Your task to perform on an android device: choose inbox layout in the gmail app Image 0: 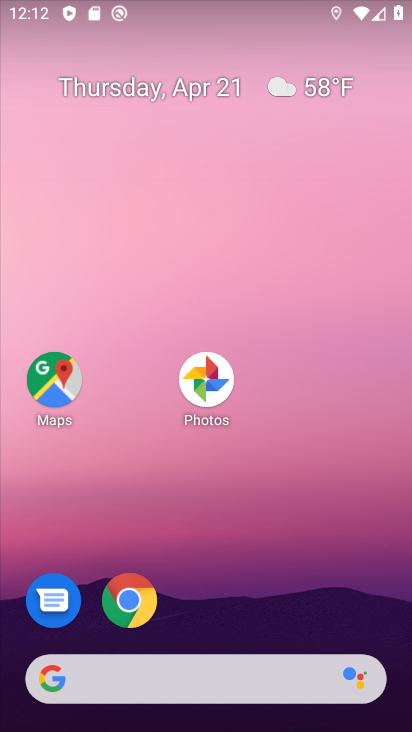
Step 0: drag from (222, 649) to (170, 68)
Your task to perform on an android device: choose inbox layout in the gmail app Image 1: 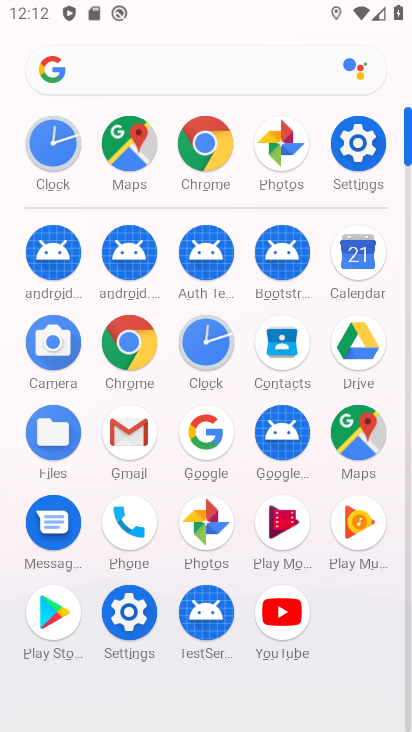
Step 1: click (136, 444)
Your task to perform on an android device: choose inbox layout in the gmail app Image 2: 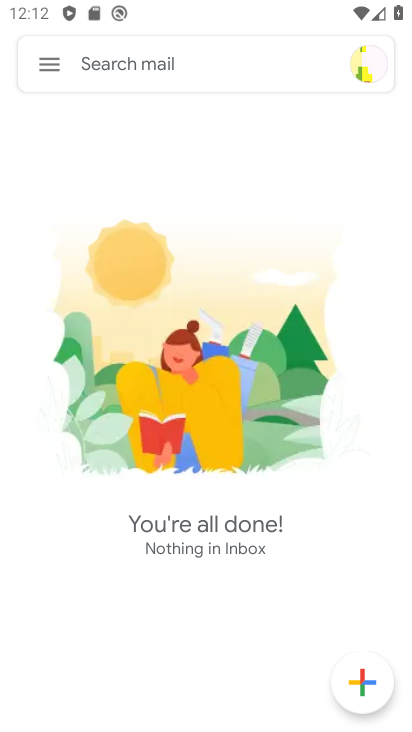
Step 2: task complete